Your task to perform on an android device: Search for the best rated TV on Target Image 0: 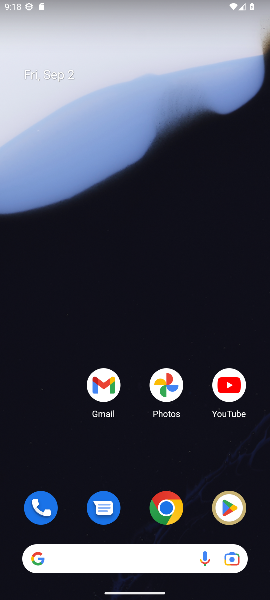
Step 0: drag from (185, 494) to (68, 2)
Your task to perform on an android device: Search for the best rated TV on Target Image 1: 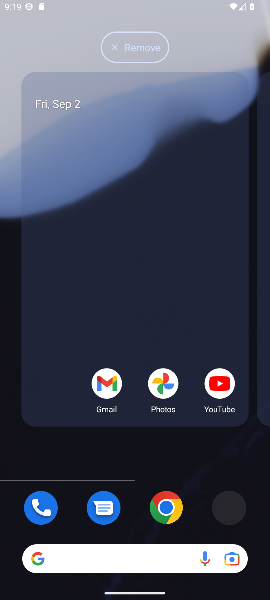
Step 1: click (62, 26)
Your task to perform on an android device: Search for the best rated TV on Target Image 2: 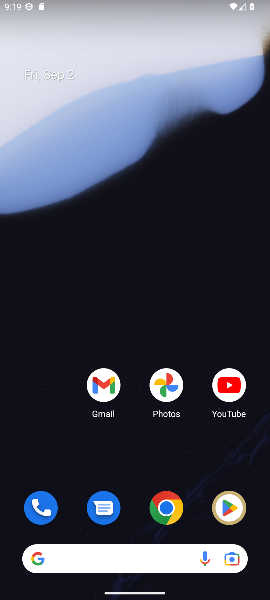
Step 2: click (168, 506)
Your task to perform on an android device: Search for the best rated TV on Target Image 3: 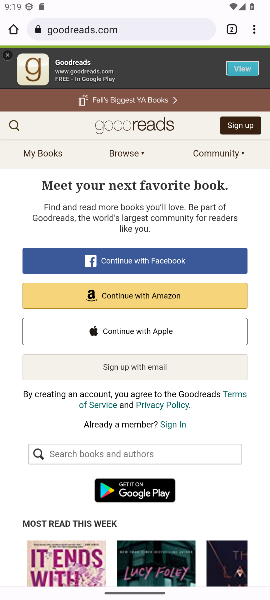
Step 3: click (119, 28)
Your task to perform on an android device: Search for the best rated TV on Target Image 4: 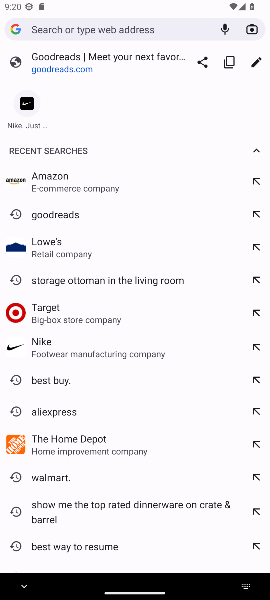
Step 4: type " Target"
Your task to perform on an android device: Search for the best rated TV on Target Image 5: 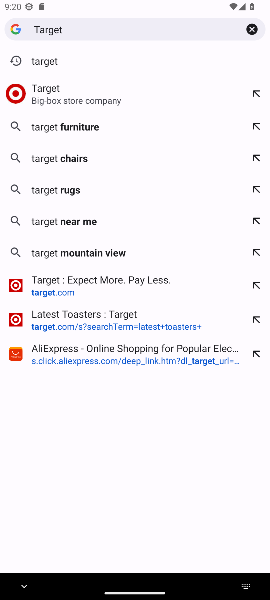
Step 5: click (42, 59)
Your task to perform on an android device: Search for the best rated TV on Target Image 6: 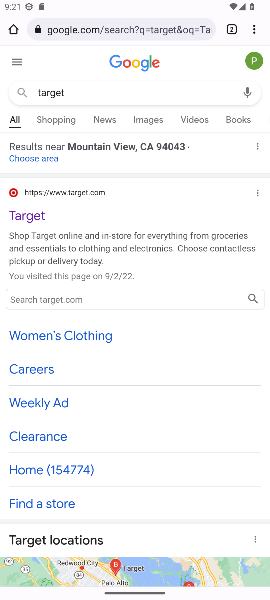
Step 6: click (14, 213)
Your task to perform on an android device: Search for the best rated TV on Target Image 7: 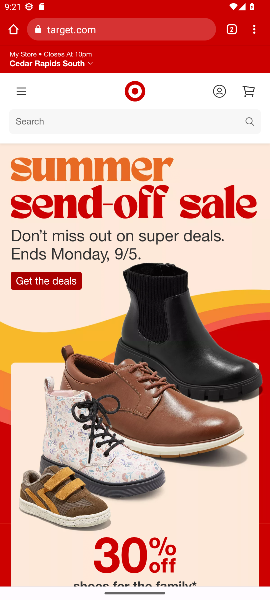
Step 7: click (246, 119)
Your task to perform on an android device: Search for the best rated TV on Target Image 8: 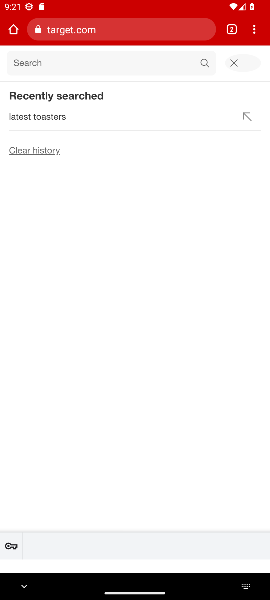
Step 8: type " best rated TV"
Your task to perform on an android device: Search for the best rated TV on Target Image 9: 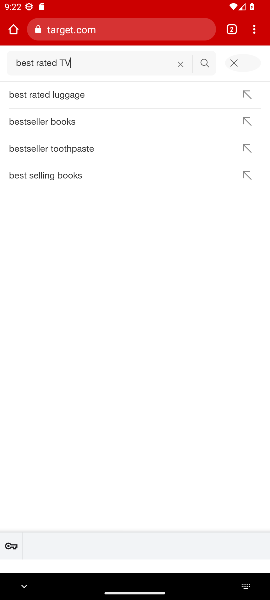
Step 9: click (56, 97)
Your task to perform on an android device: Search for the best rated TV on Target Image 10: 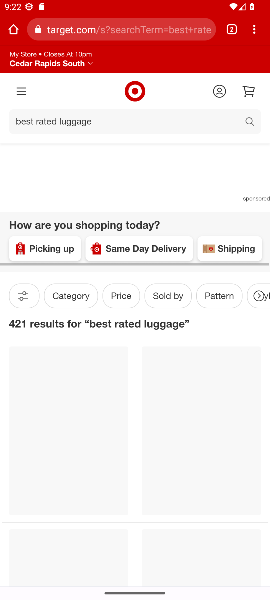
Step 10: task complete